Your task to perform on an android device: see sites visited before in the chrome app Image 0: 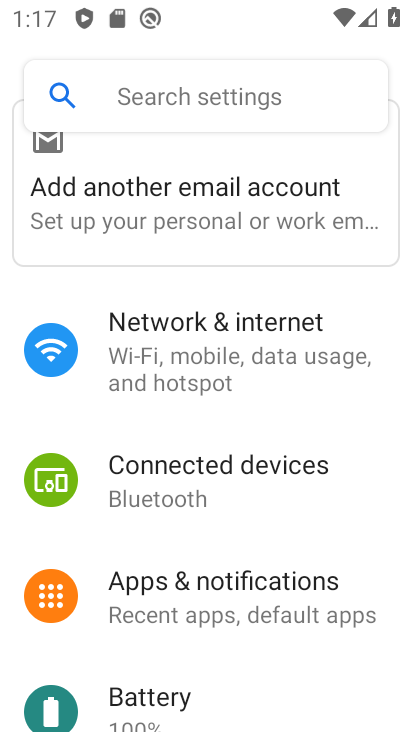
Step 0: press home button
Your task to perform on an android device: see sites visited before in the chrome app Image 1: 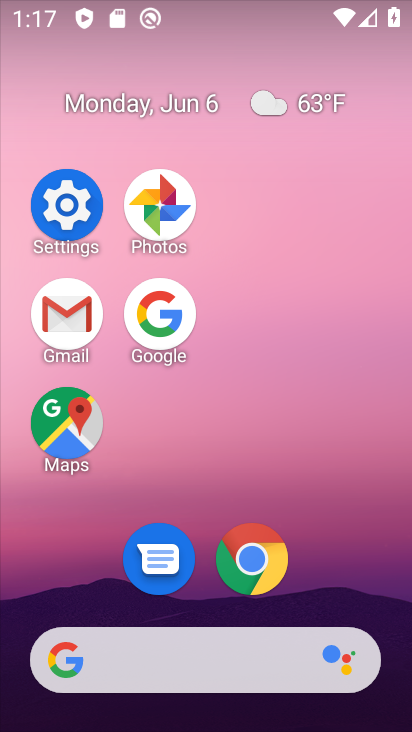
Step 1: click (266, 552)
Your task to perform on an android device: see sites visited before in the chrome app Image 2: 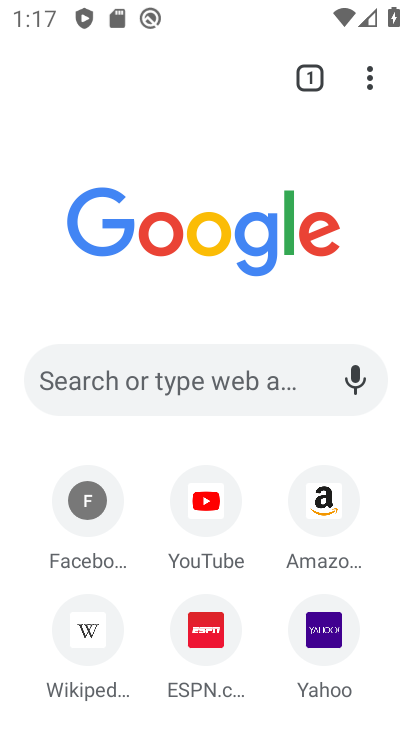
Step 2: click (368, 68)
Your task to perform on an android device: see sites visited before in the chrome app Image 3: 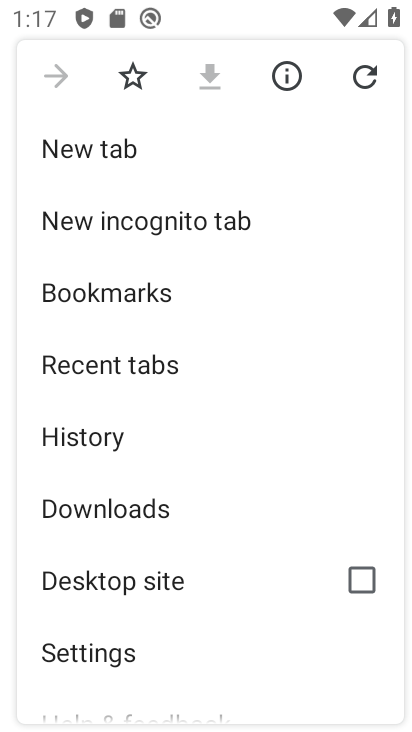
Step 3: click (240, 357)
Your task to perform on an android device: see sites visited before in the chrome app Image 4: 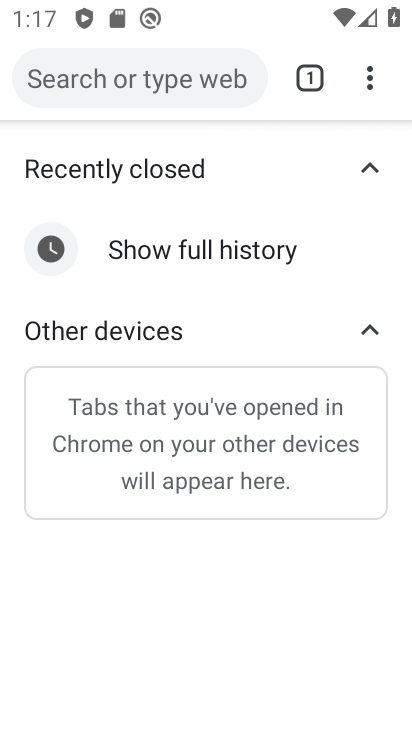
Step 4: task complete